Your task to perform on an android device: Open the calendar app, open the side menu, and click the "Day" option Image 0: 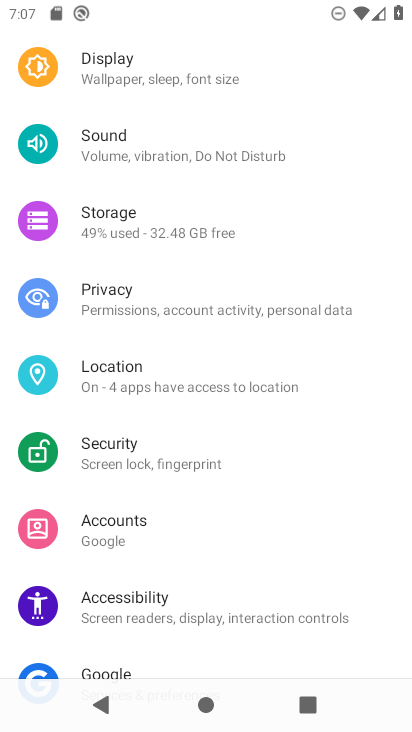
Step 0: press home button
Your task to perform on an android device: Open the calendar app, open the side menu, and click the "Day" option Image 1: 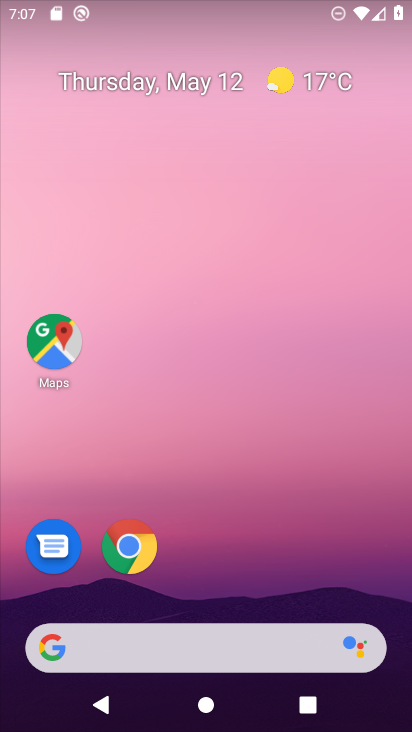
Step 1: drag from (258, 514) to (151, 46)
Your task to perform on an android device: Open the calendar app, open the side menu, and click the "Day" option Image 2: 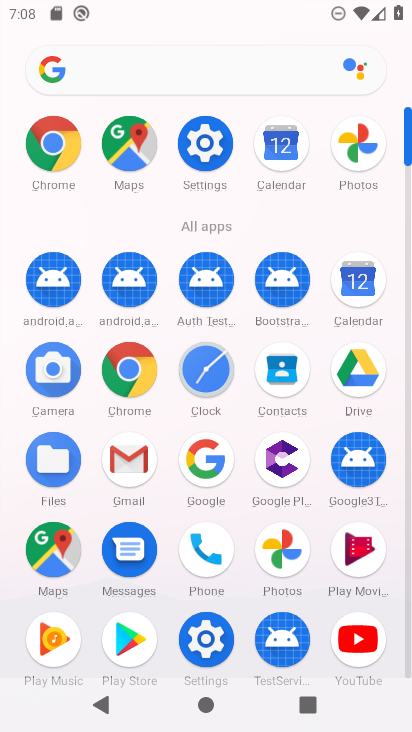
Step 2: click (365, 277)
Your task to perform on an android device: Open the calendar app, open the side menu, and click the "Day" option Image 3: 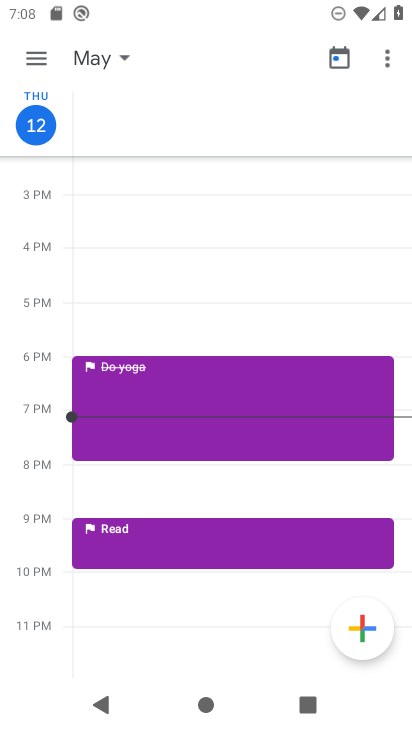
Step 3: click (38, 56)
Your task to perform on an android device: Open the calendar app, open the side menu, and click the "Day" option Image 4: 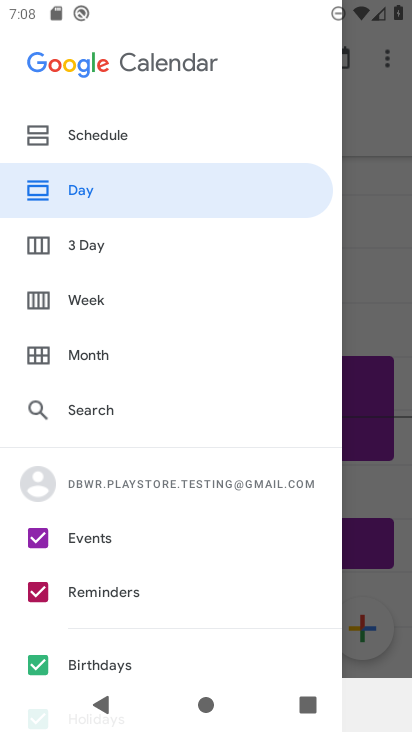
Step 4: click (77, 186)
Your task to perform on an android device: Open the calendar app, open the side menu, and click the "Day" option Image 5: 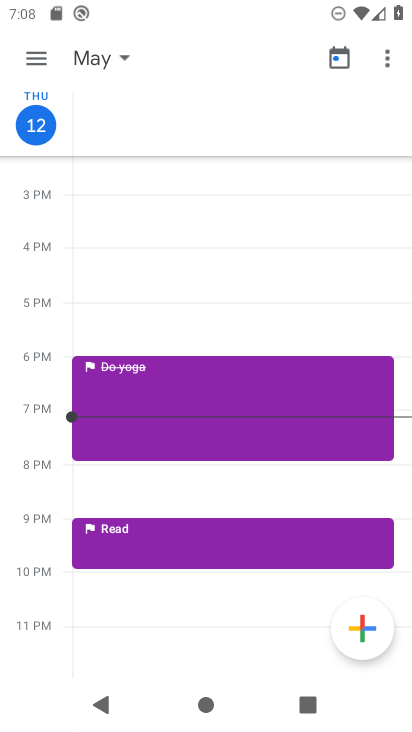
Step 5: task complete